Your task to perform on an android device: Search for good Greek restaurants Image 0: 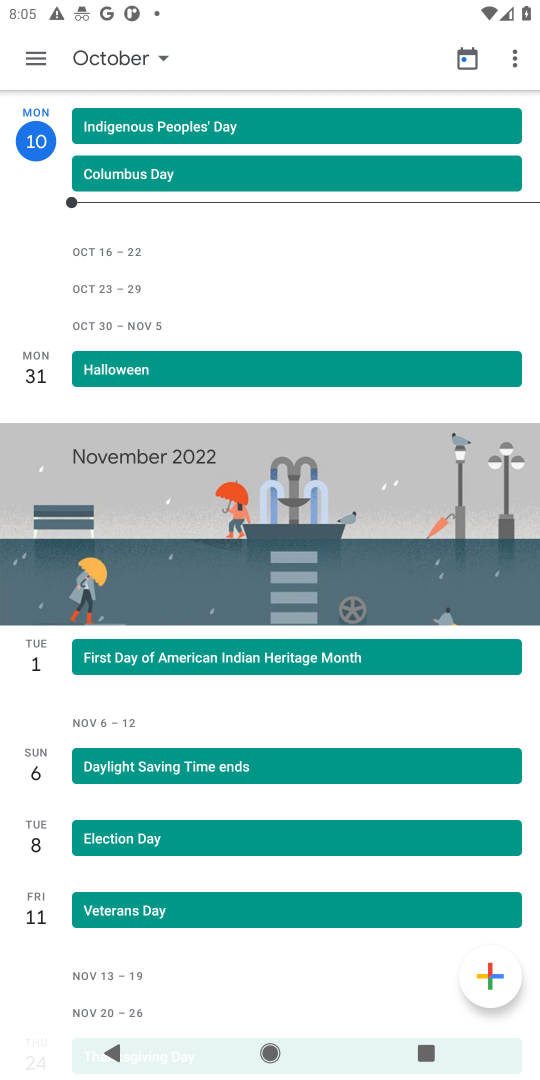
Step 0: press home button
Your task to perform on an android device: Search for good Greek restaurants Image 1: 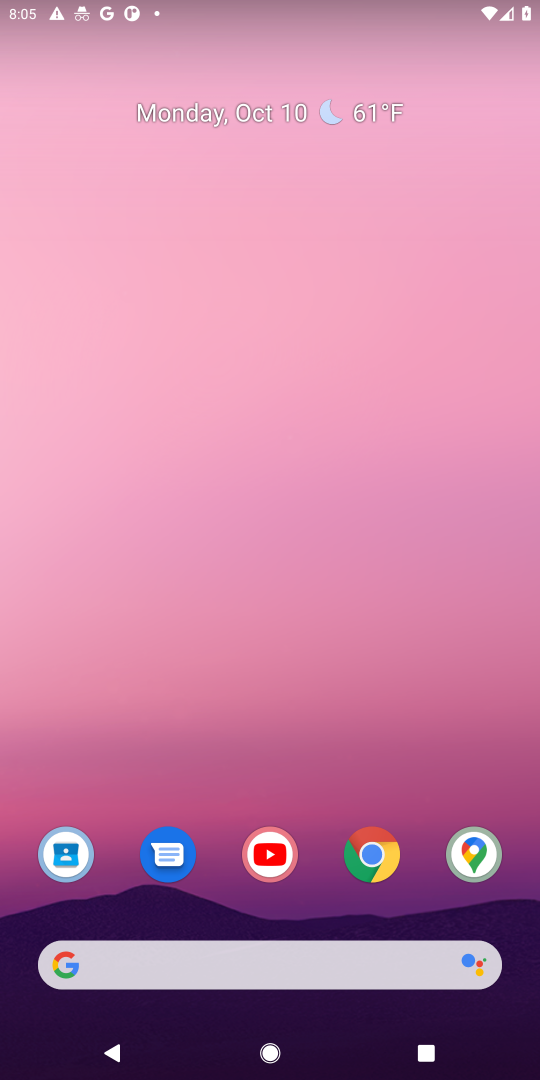
Step 1: click (368, 861)
Your task to perform on an android device: Search for good Greek restaurants Image 2: 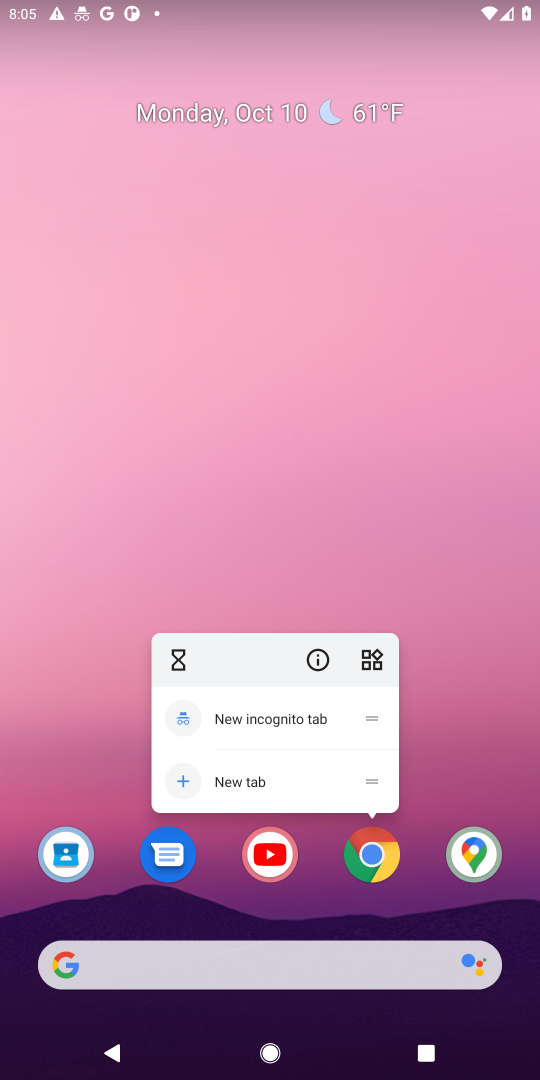
Step 2: click (368, 861)
Your task to perform on an android device: Search for good Greek restaurants Image 3: 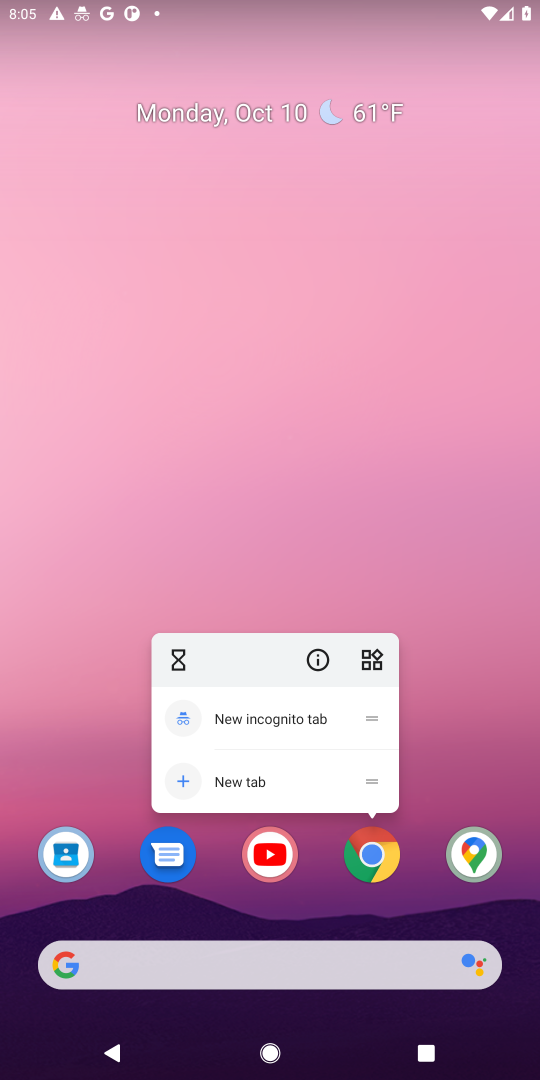
Step 3: click (368, 861)
Your task to perform on an android device: Search for good Greek restaurants Image 4: 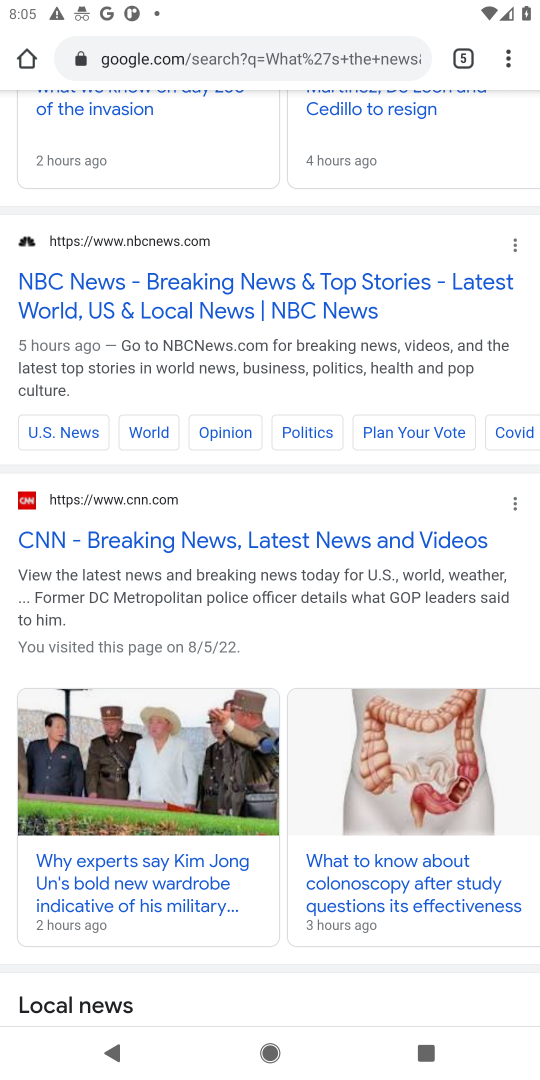
Step 4: click (269, 56)
Your task to perform on an android device: Search for good Greek restaurants Image 5: 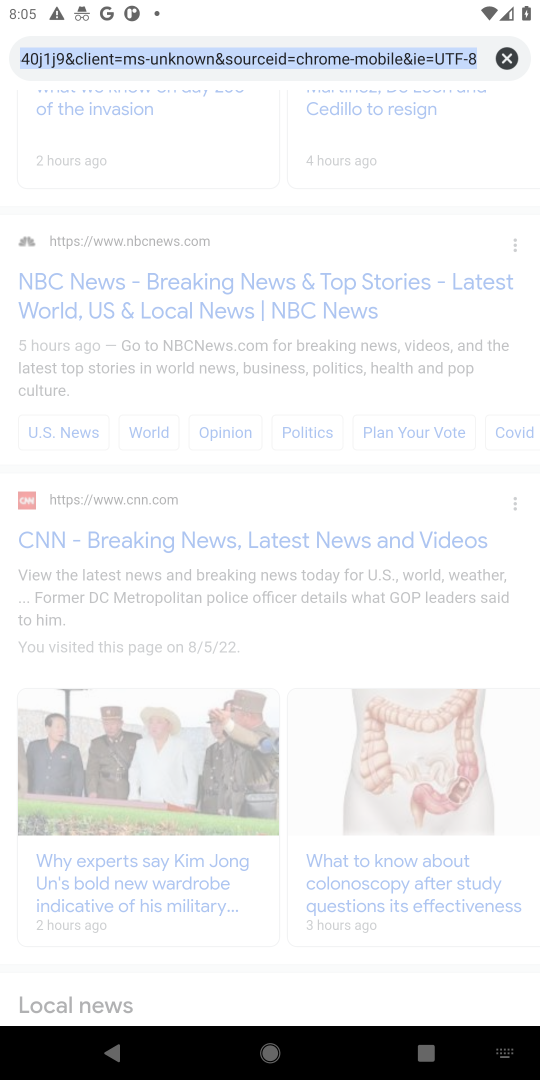
Step 5: click (502, 52)
Your task to perform on an android device: Search for good Greek restaurants Image 6: 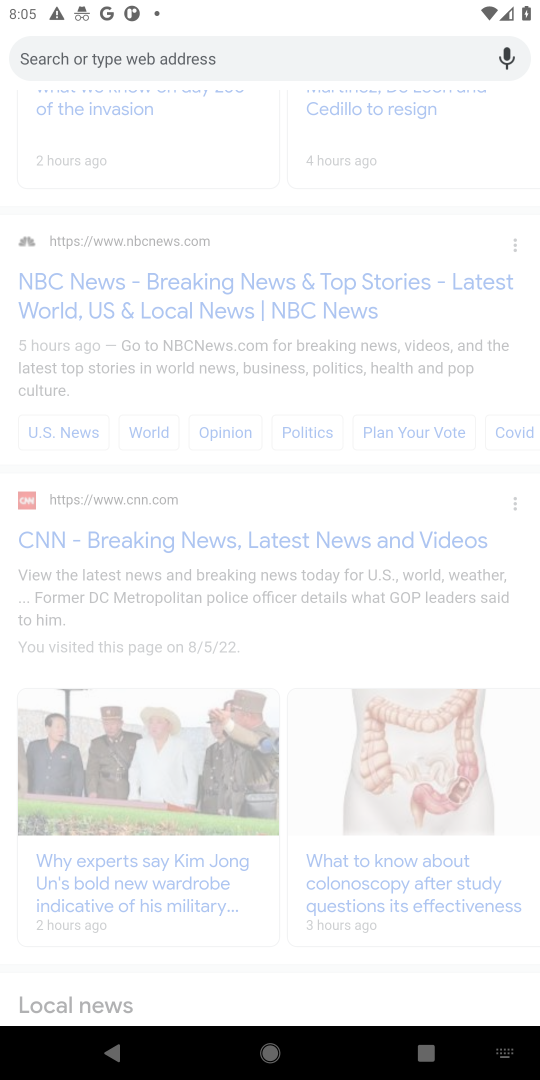
Step 6: type " good Greek restaurants"
Your task to perform on an android device: Search for good Greek restaurants Image 7: 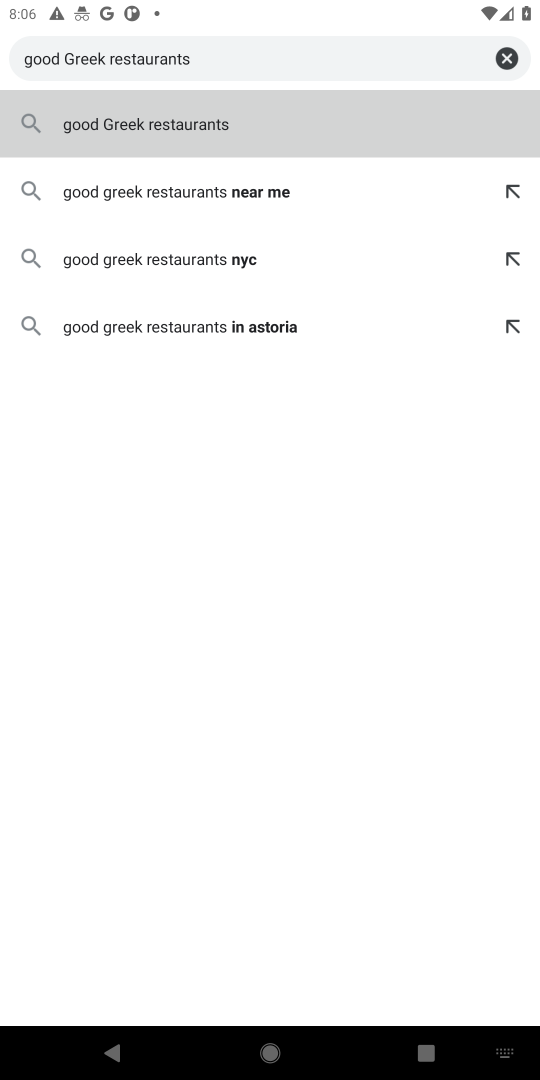
Step 7: click (173, 125)
Your task to perform on an android device: Search for good Greek restaurants Image 8: 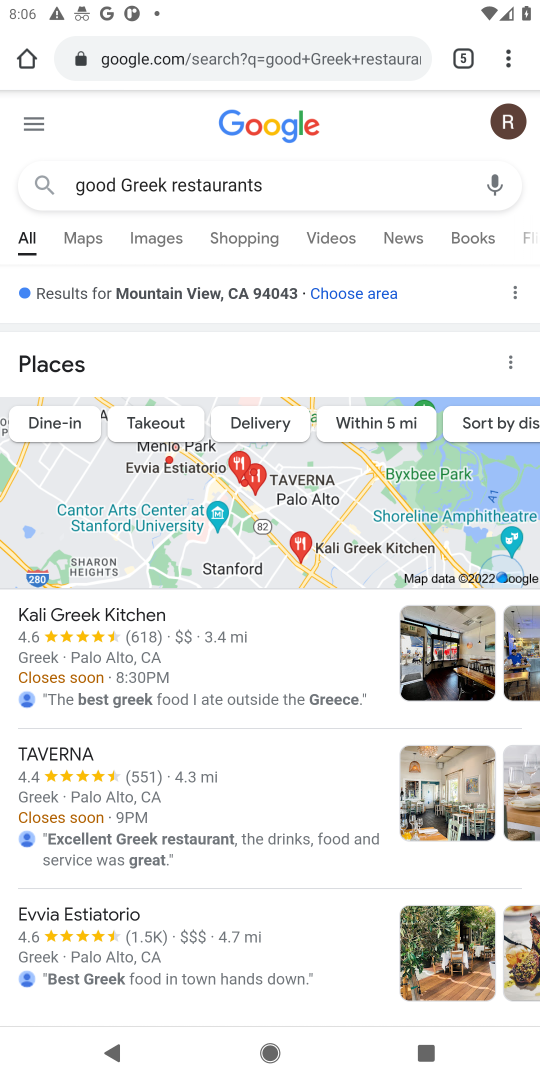
Step 8: drag from (192, 853) to (511, 129)
Your task to perform on an android device: Search for good Greek restaurants Image 9: 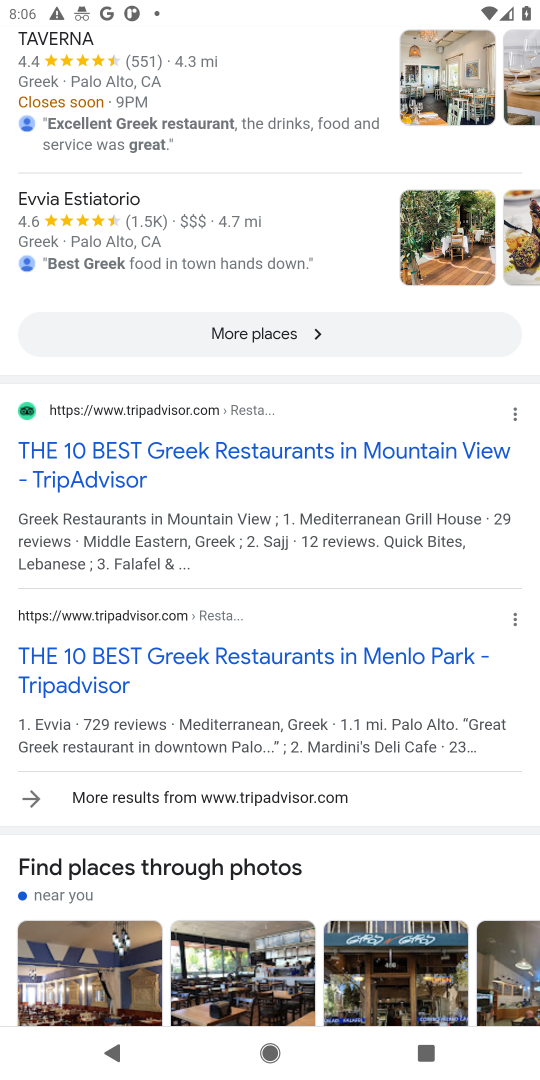
Step 9: click (290, 320)
Your task to perform on an android device: Search for good Greek restaurants Image 10: 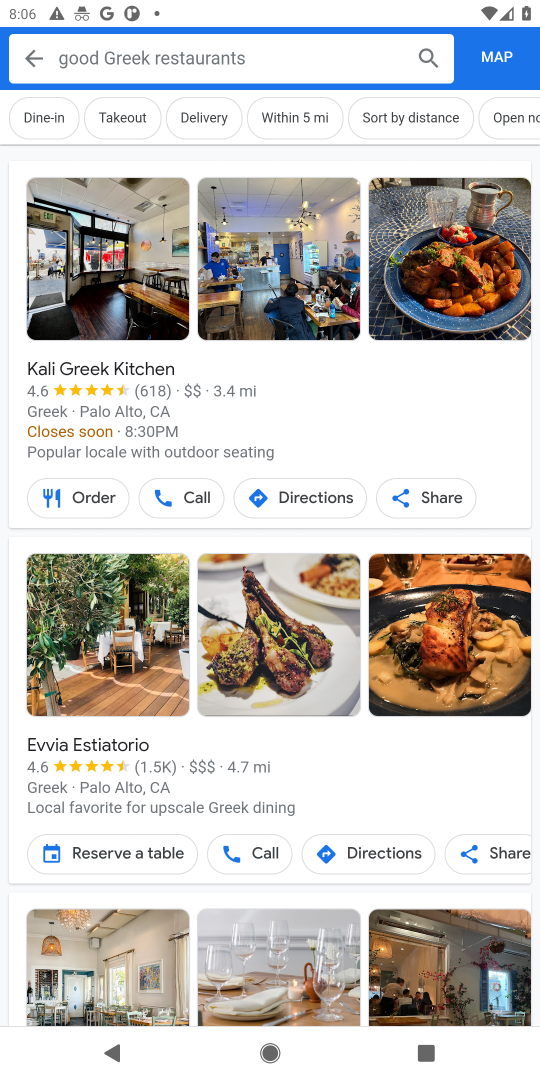
Step 10: task complete